Your task to perform on an android device: toggle pop-ups in chrome Image 0: 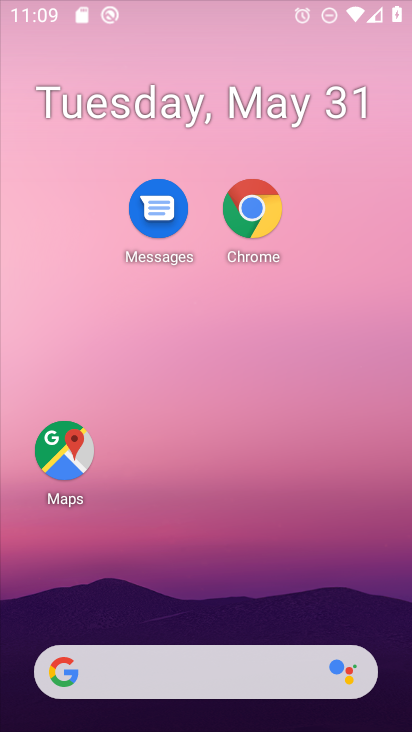
Step 0: press home button
Your task to perform on an android device: toggle pop-ups in chrome Image 1: 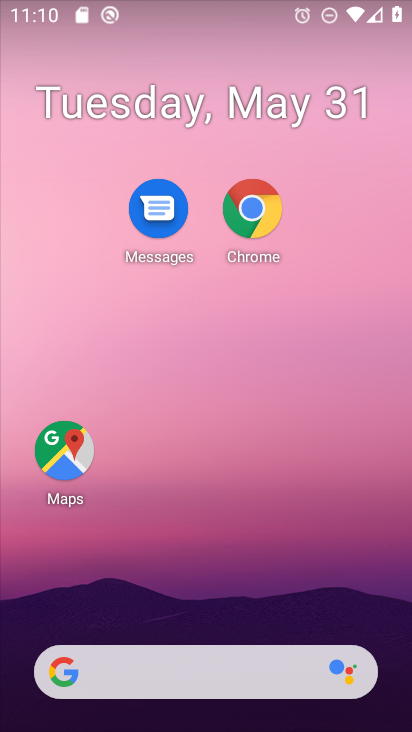
Step 1: click (248, 202)
Your task to perform on an android device: toggle pop-ups in chrome Image 2: 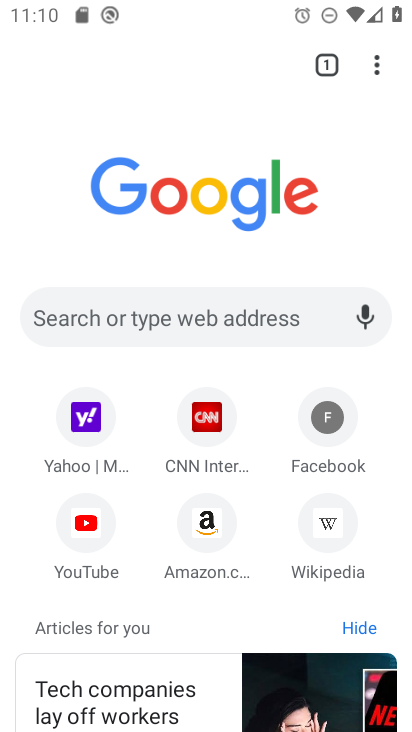
Step 2: click (374, 61)
Your task to perform on an android device: toggle pop-ups in chrome Image 3: 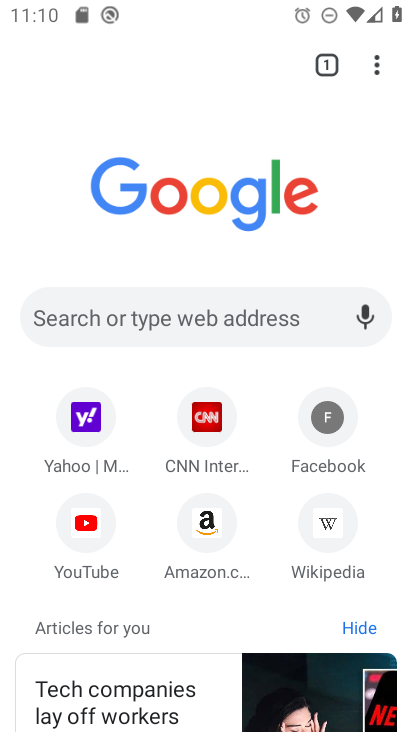
Step 3: click (377, 60)
Your task to perform on an android device: toggle pop-ups in chrome Image 4: 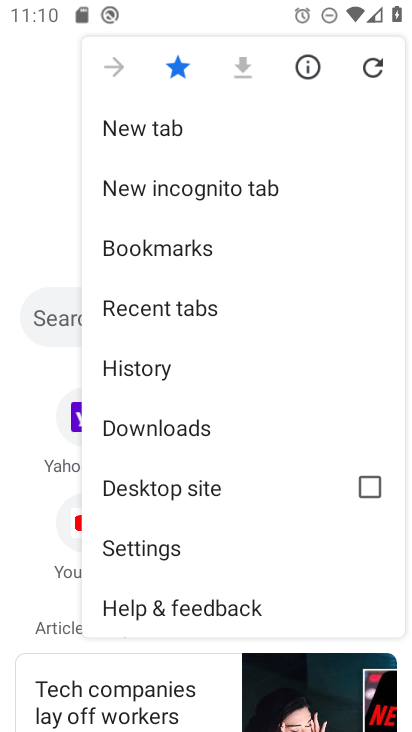
Step 4: click (187, 536)
Your task to perform on an android device: toggle pop-ups in chrome Image 5: 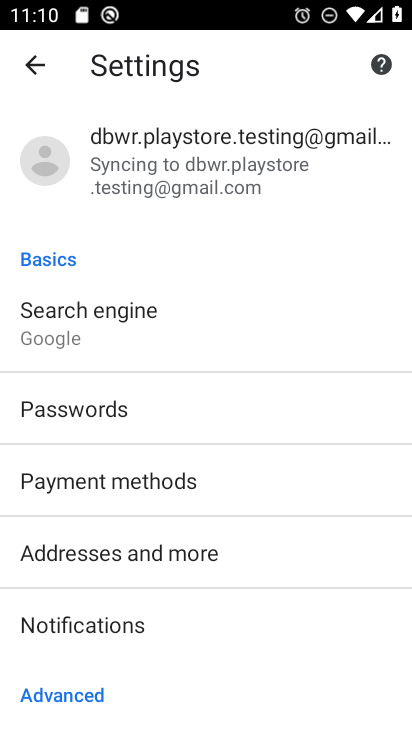
Step 5: drag from (221, 626) to (264, 120)
Your task to perform on an android device: toggle pop-ups in chrome Image 6: 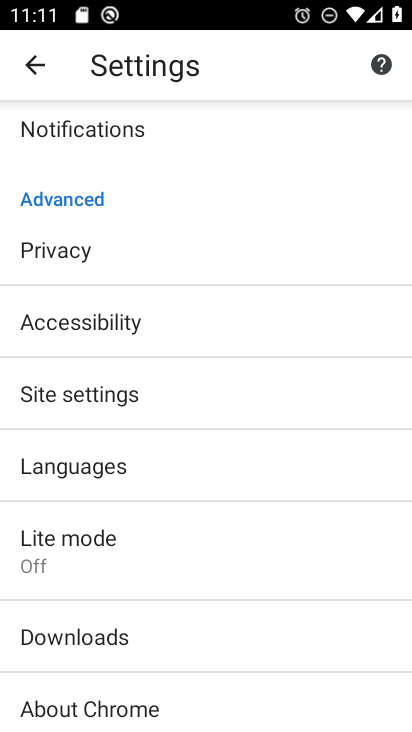
Step 6: click (145, 392)
Your task to perform on an android device: toggle pop-ups in chrome Image 7: 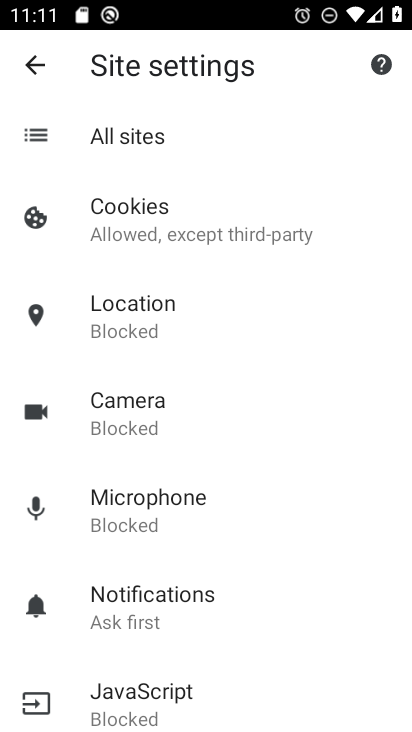
Step 7: drag from (193, 663) to (198, 154)
Your task to perform on an android device: toggle pop-ups in chrome Image 8: 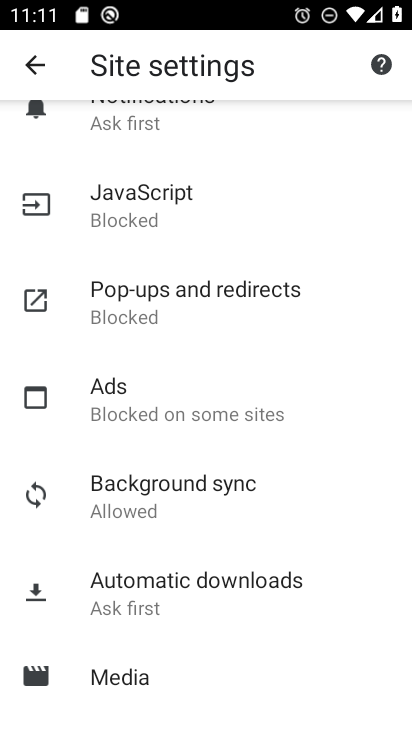
Step 8: click (188, 310)
Your task to perform on an android device: toggle pop-ups in chrome Image 9: 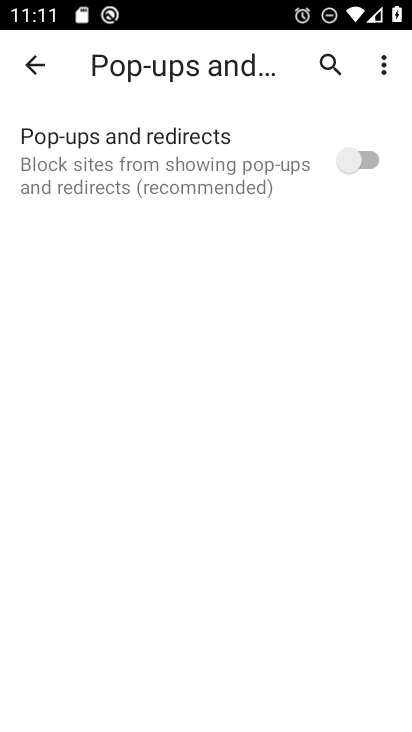
Step 9: click (361, 152)
Your task to perform on an android device: toggle pop-ups in chrome Image 10: 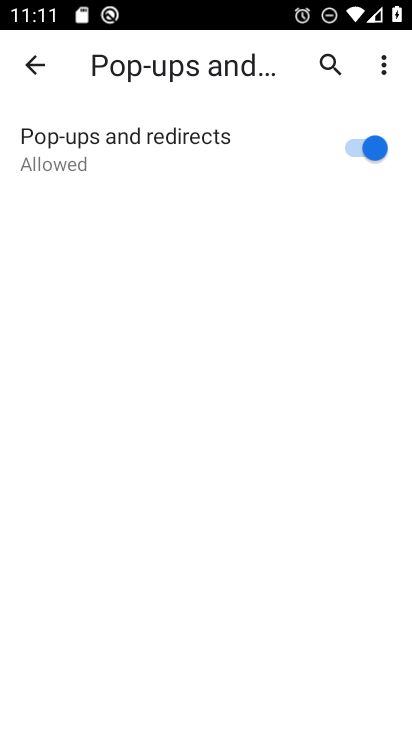
Step 10: task complete